Your task to perform on an android device: change alarm snooze length Image 0: 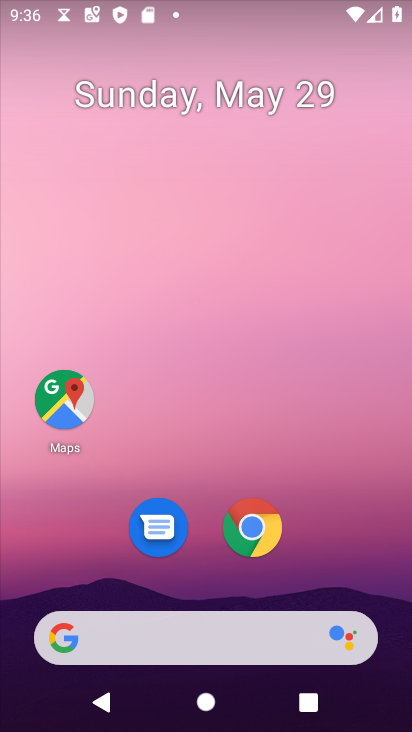
Step 0: press home button
Your task to perform on an android device: change alarm snooze length Image 1: 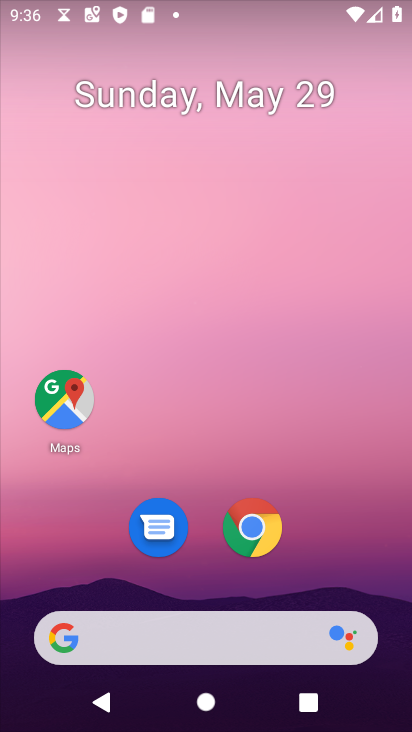
Step 1: drag from (244, 616) to (365, 152)
Your task to perform on an android device: change alarm snooze length Image 2: 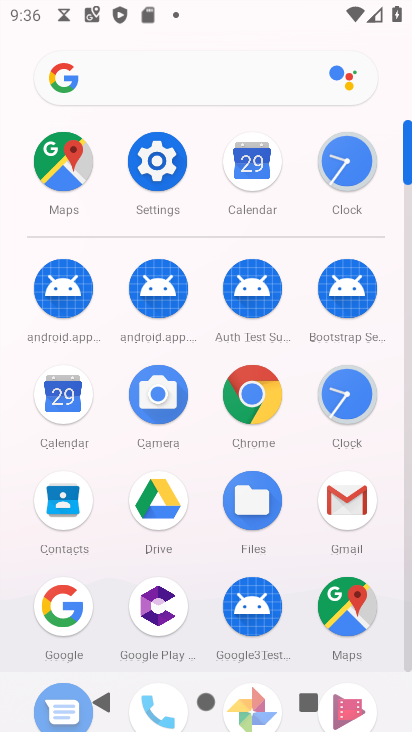
Step 2: click (354, 156)
Your task to perform on an android device: change alarm snooze length Image 3: 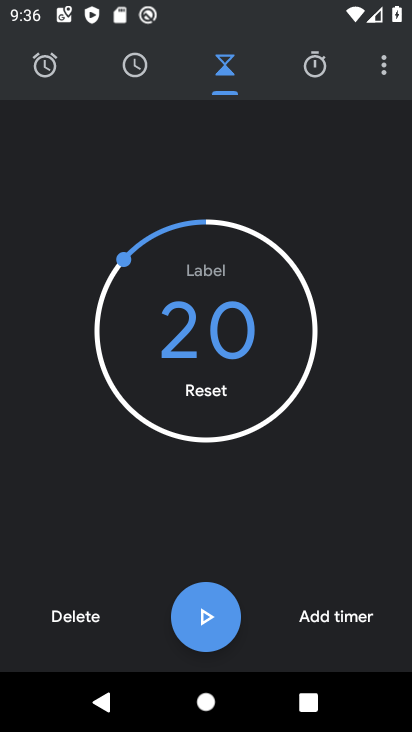
Step 3: click (382, 66)
Your task to perform on an android device: change alarm snooze length Image 4: 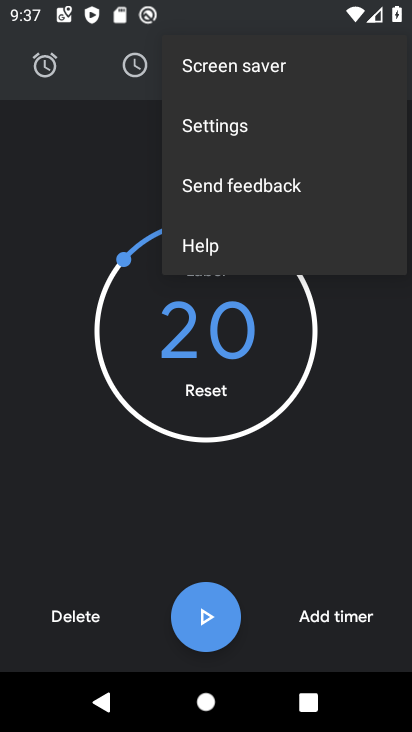
Step 4: click (251, 127)
Your task to perform on an android device: change alarm snooze length Image 5: 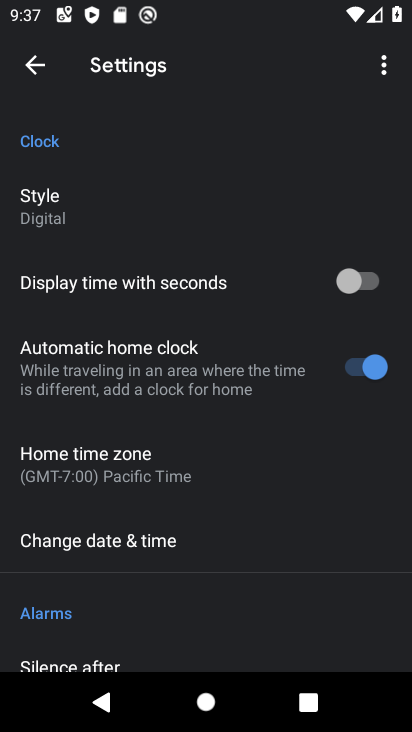
Step 5: drag from (207, 516) to (363, 185)
Your task to perform on an android device: change alarm snooze length Image 6: 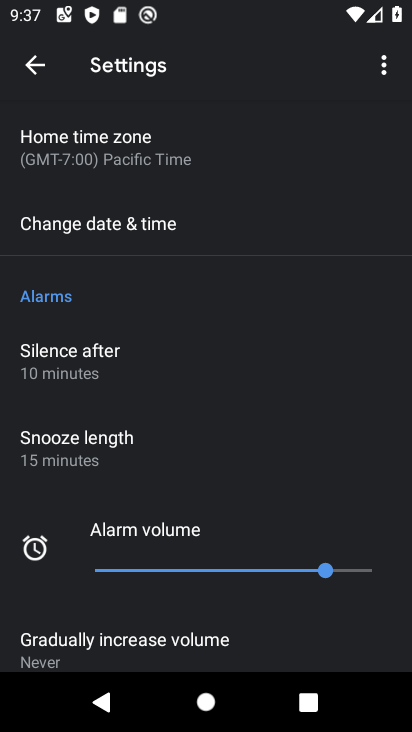
Step 6: click (112, 437)
Your task to perform on an android device: change alarm snooze length Image 7: 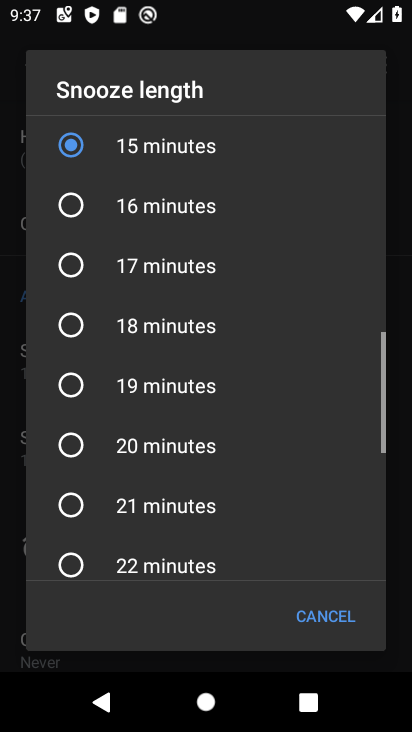
Step 7: drag from (201, 244) to (171, 572)
Your task to perform on an android device: change alarm snooze length Image 8: 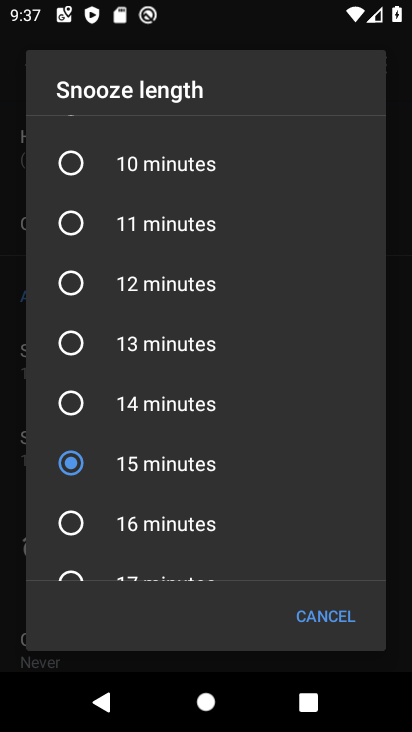
Step 8: click (79, 162)
Your task to perform on an android device: change alarm snooze length Image 9: 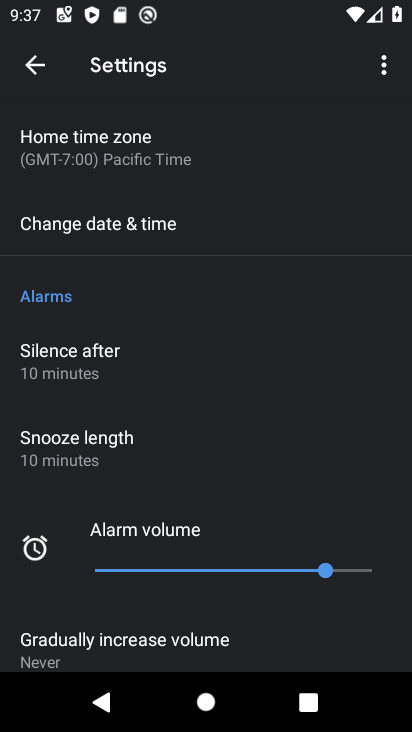
Step 9: task complete